Your task to perform on an android device: Is it going to rain this weekend? Image 0: 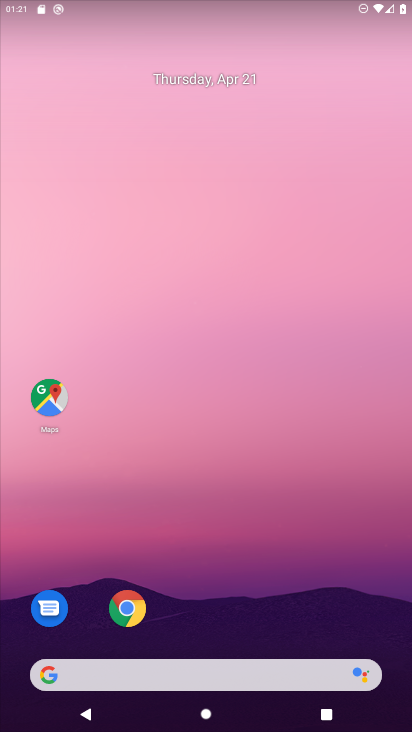
Step 0: drag from (277, 644) to (282, 180)
Your task to perform on an android device: Is it going to rain this weekend? Image 1: 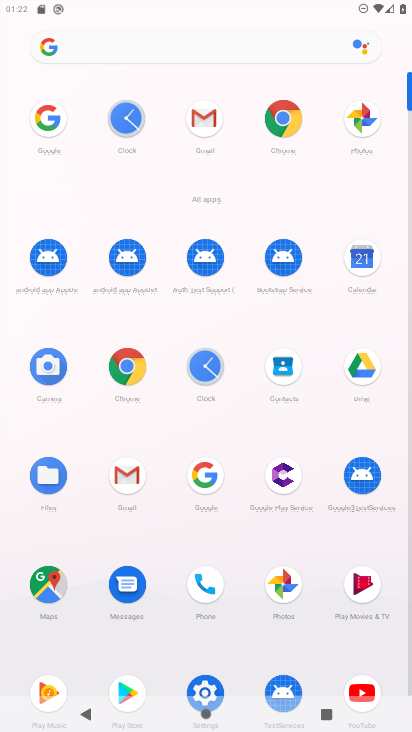
Step 1: click (127, 364)
Your task to perform on an android device: Is it going to rain this weekend? Image 2: 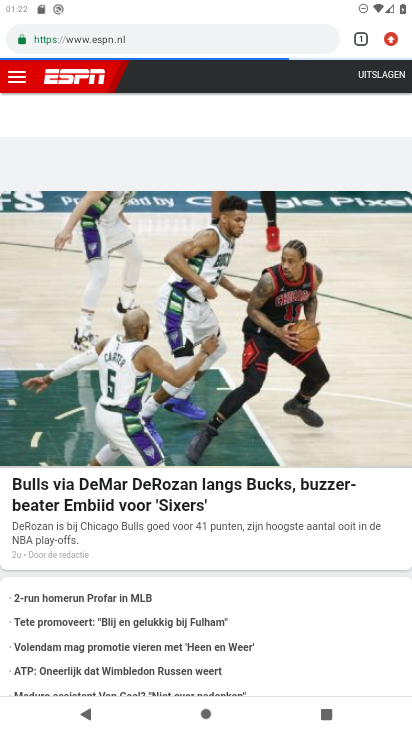
Step 2: click (386, 40)
Your task to perform on an android device: Is it going to rain this weekend? Image 3: 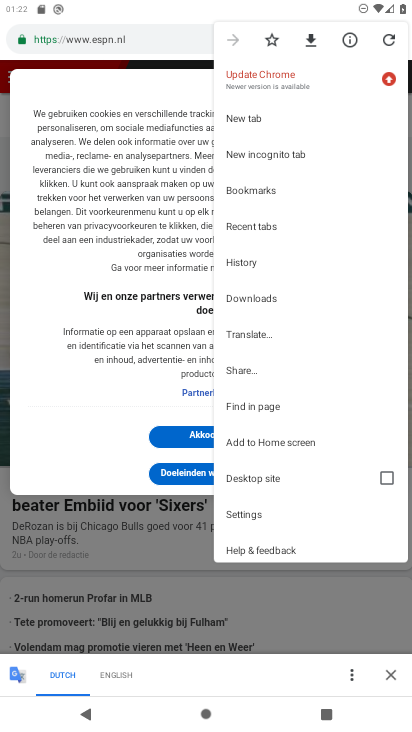
Step 3: click (261, 116)
Your task to perform on an android device: Is it going to rain this weekend? Image 4: 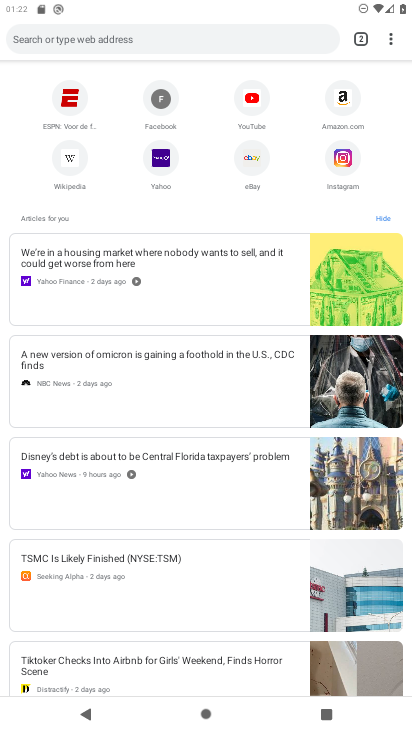
Step 4: click (165, 30)
Your task to perform on an android device: Is it going to rain this weekend? Image 5: 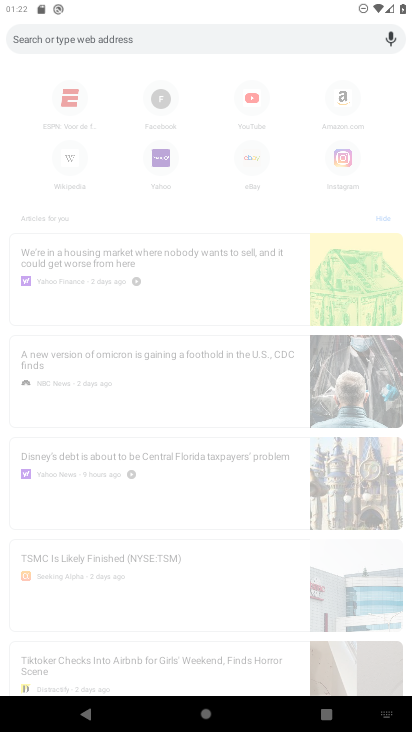
Step 5: type "Is it going to rain this weekend?"
Your task to perform on an android device: Is it going to rain this weekend? Image 6: 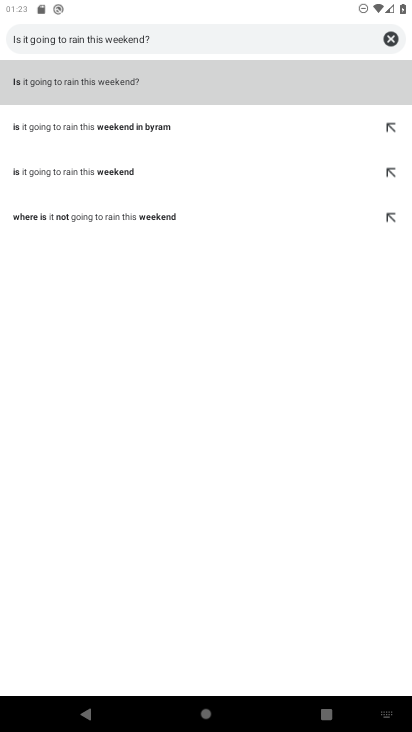
Step 6: click (155, 78)
Your task to perform on an android device: Is it going to rain this weekend? Image 7: 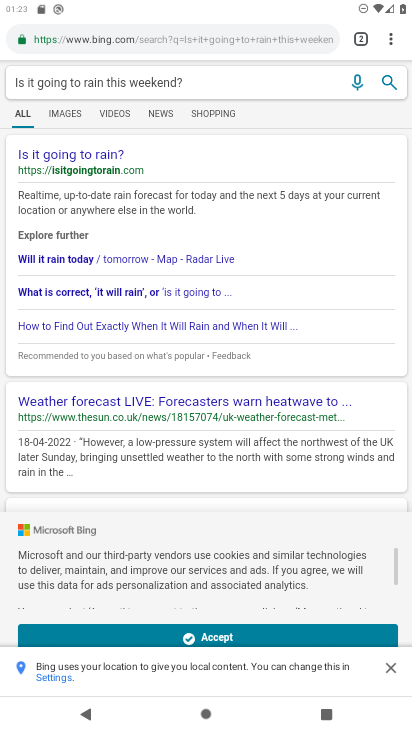
Step 7: click (199, 153)
Your task to perform on an android device: Is it going to rain this weekend? Image 8: 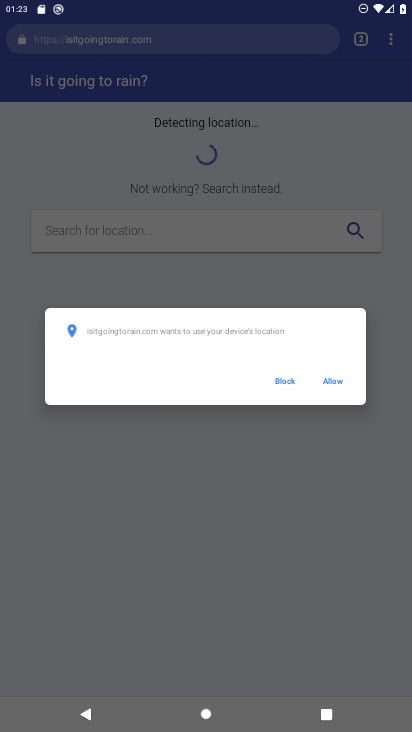
Step 8: click (331, 386)
Your task to perform on an android device: Is it going to rain this weekend? Image 9: 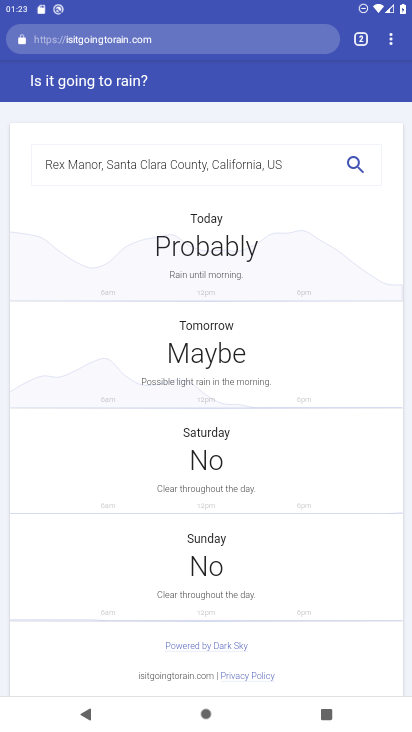
Step 9: task complete